Your task to perform on an android device: turn off wifi Image 0: 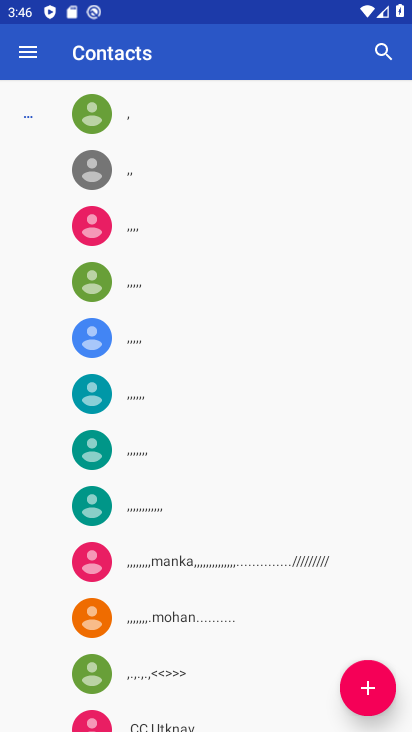
Step 0: press home button
Your task to perform on an android device: turn off wifi Image 1: 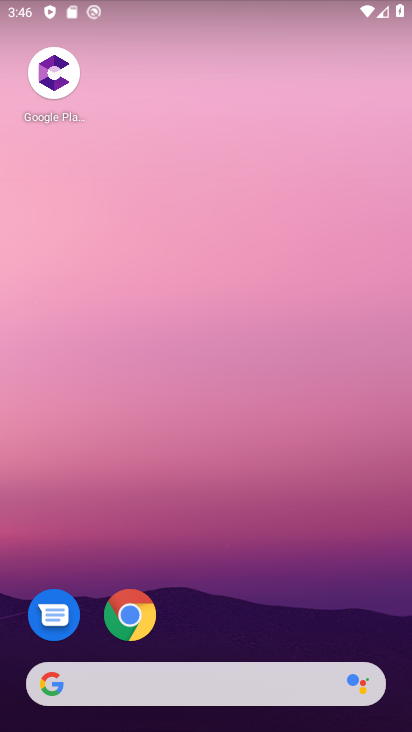
Step 1: drag from (224, 583) to (213, 511)
Your task to perform on an android device: turn off wifi Image 2: 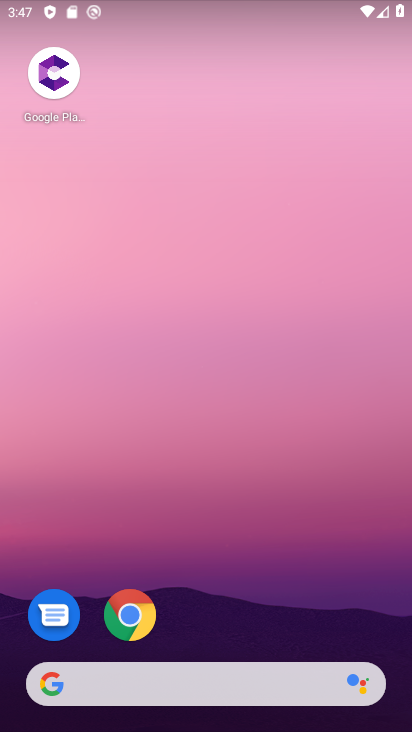
Step 2: drag from (145, 9) to (185, 316)
Your task to perform on an android device: turn off wifi Image 3: 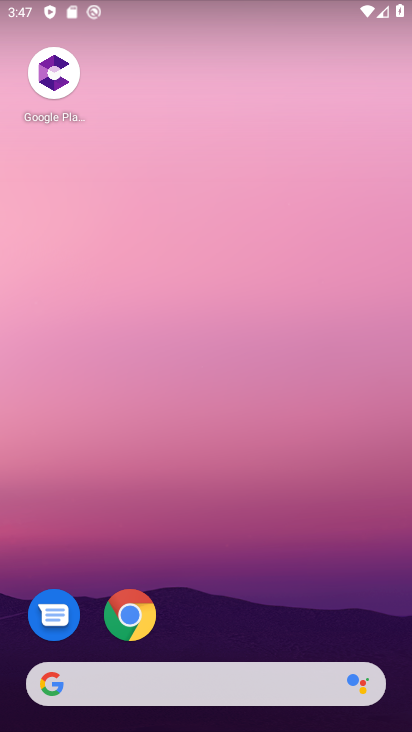
Step 3: drag from (354, 8) to (348, 383)
Your task to perform on an android device: turn off wifi Image 4: 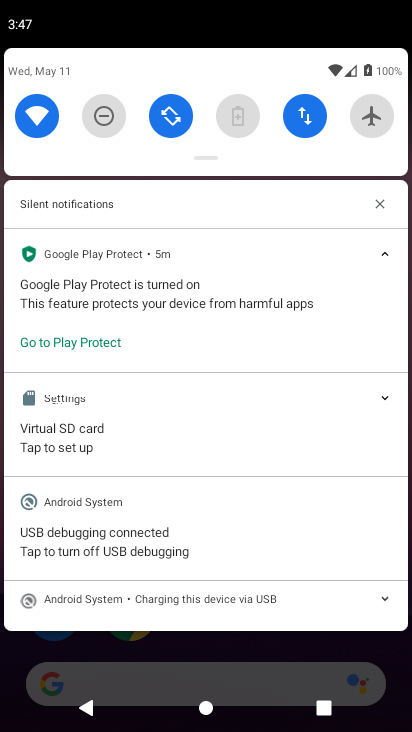
Step 4: click (42, 125)
Your task to perform on an android device: turn off wifi Image 5: 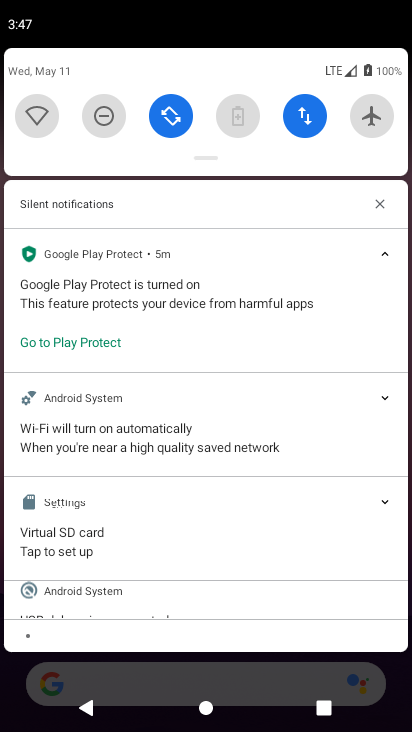
Step 5: task complete